Your task to perform on an android device: Go to sound settings Image 0: 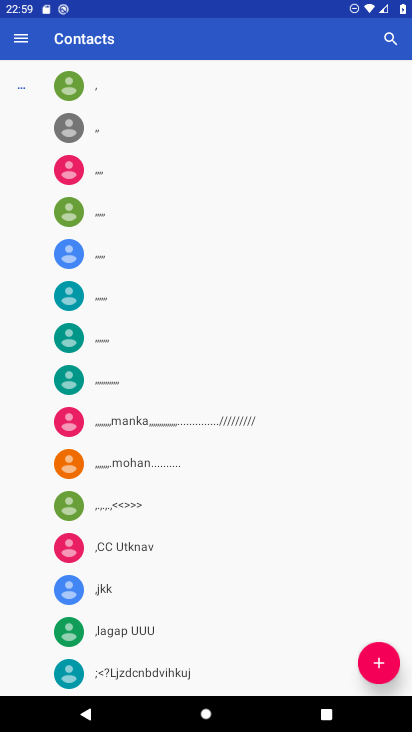
Step 0: press home button
Your task to perform on an android device: Go to sound settings Image 1: 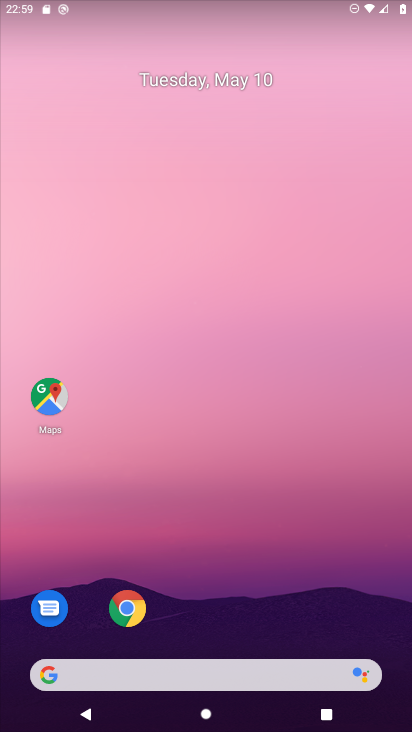
Step 1: drag from (235, 628) to (199, 293)
Your task to perform on an android device: Go to sound settings Image 2: 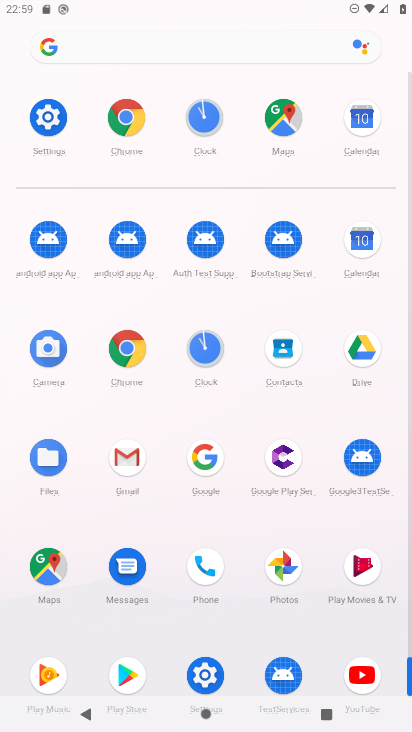
Step 2: click (47, 117)
Your task to perform on an android device: Go to sound settings Image 3: 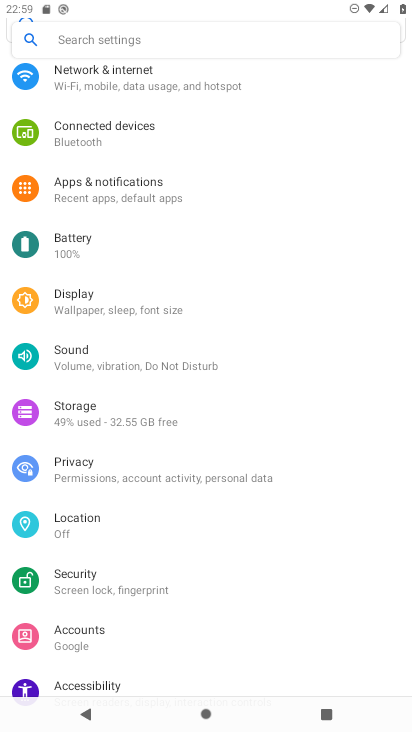
Step 3: click (132, 356)
Your task to perform on an android device: Go to sound settings Image 4: 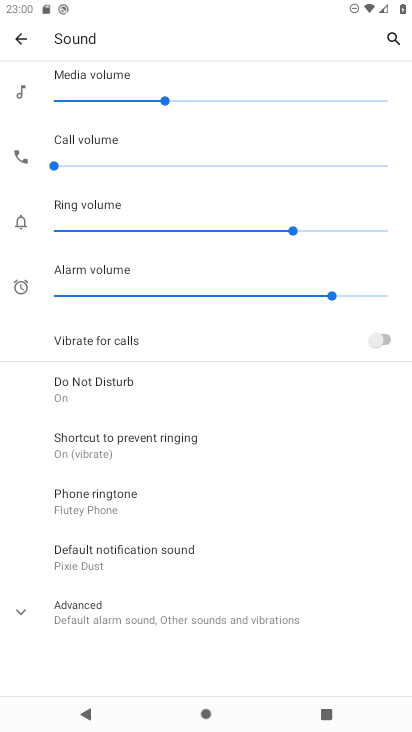
Step 4: task complete